Your task to perform on an android device: change the clock style Image 0: 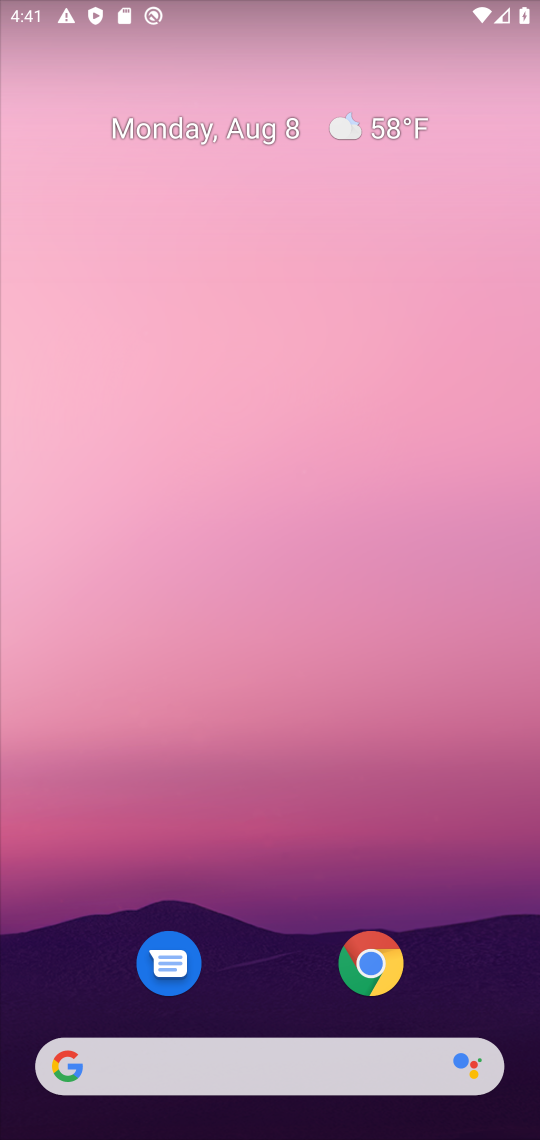
Step 0: drag from (250, 936) to (355, 3)
Your task to perform on an android device: change the clock style Image 1: 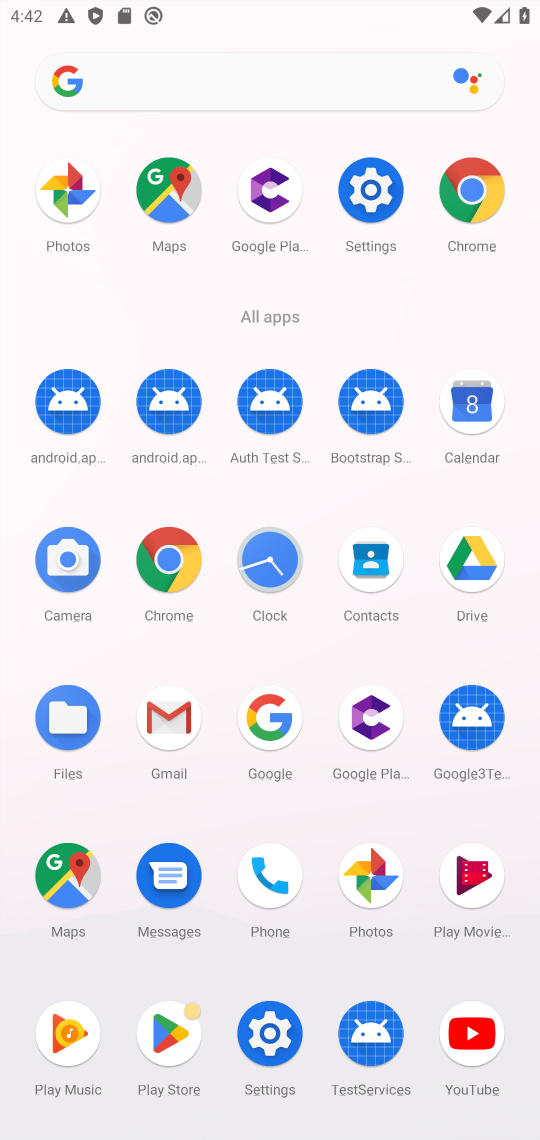
Step 1: click (258, 576)
Your task to perform on an android device: change the clock style Image 2: 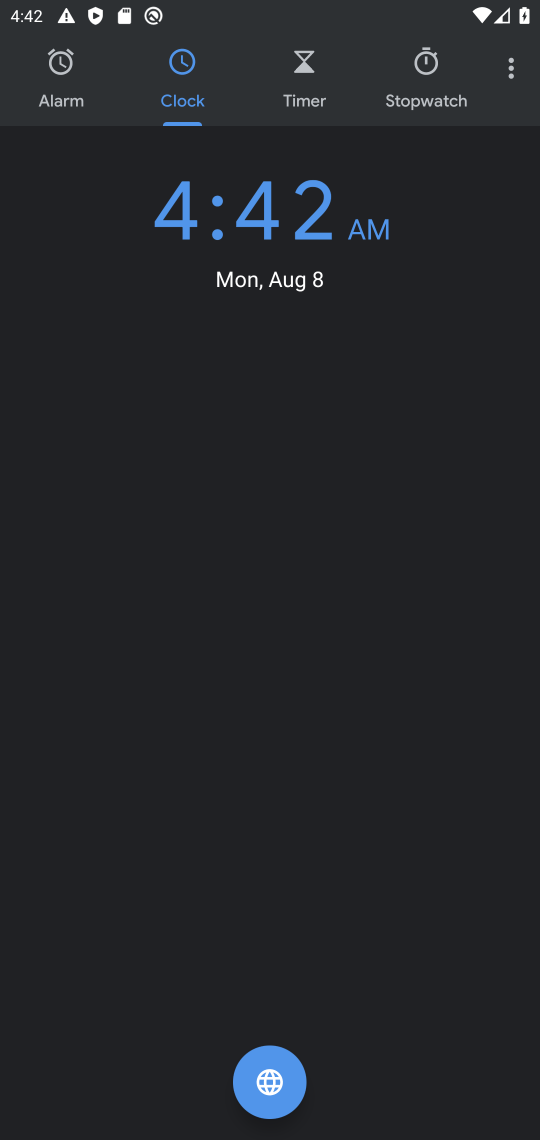
Step 2: click (510, 61)
Your task to perform on an android device: change the clock style Image 3: 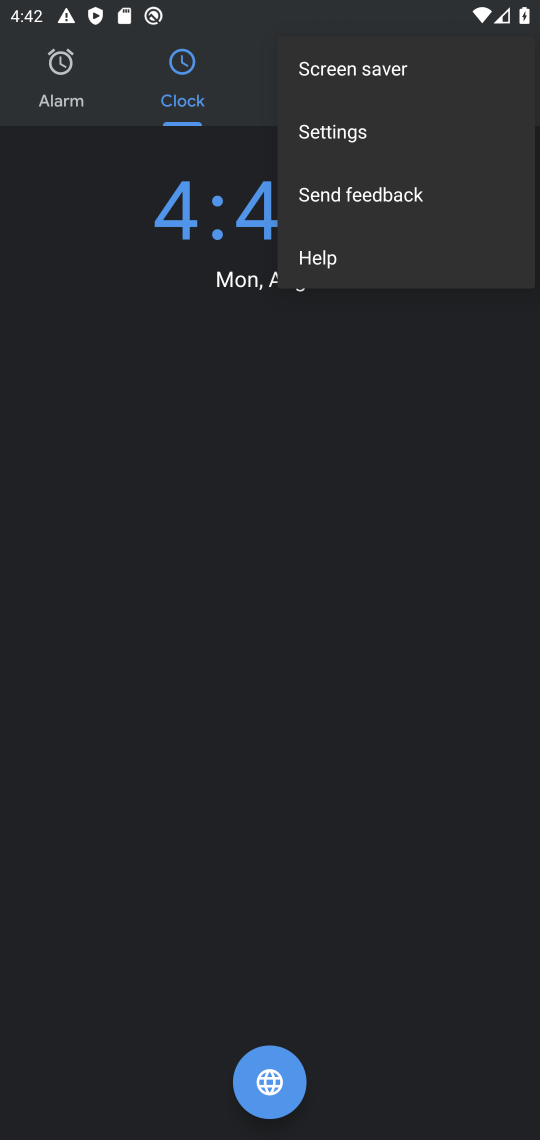
Step 3: click (350, 140)
Your task to perform on an android device: change the clock style Image 4: 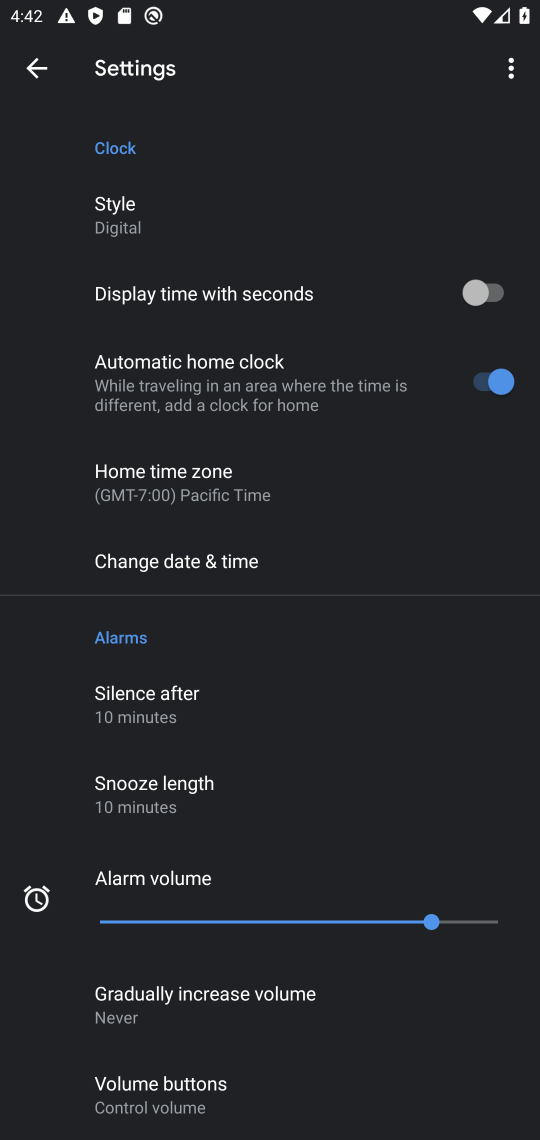
Step 4: click (139, 239)
Your task to perform on an android device: change the clock style Image 5: 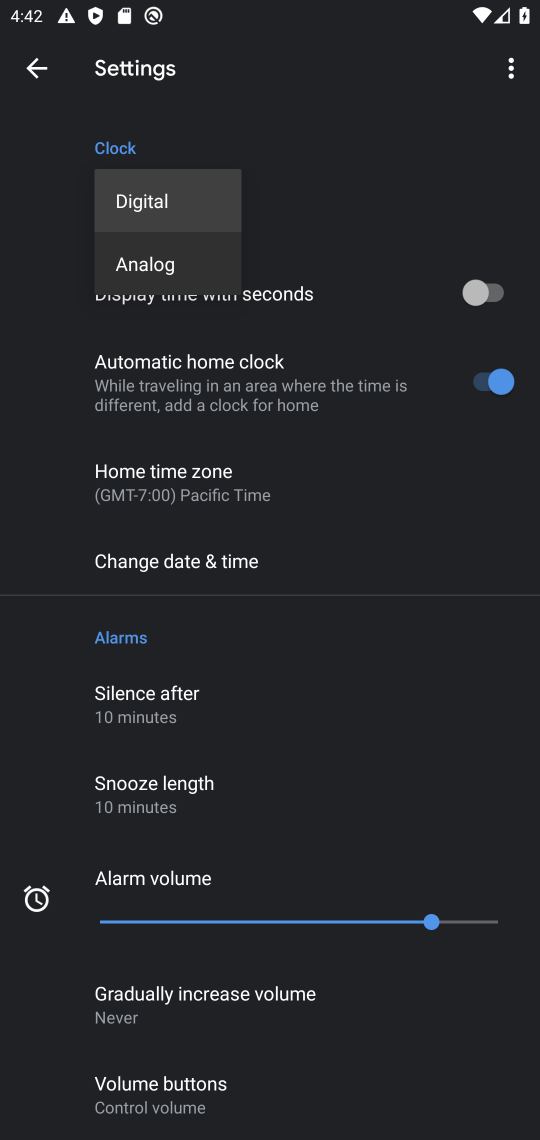
Step 5: click (172, 279)
Your task to perform on an android device: change the clock style Image 6: 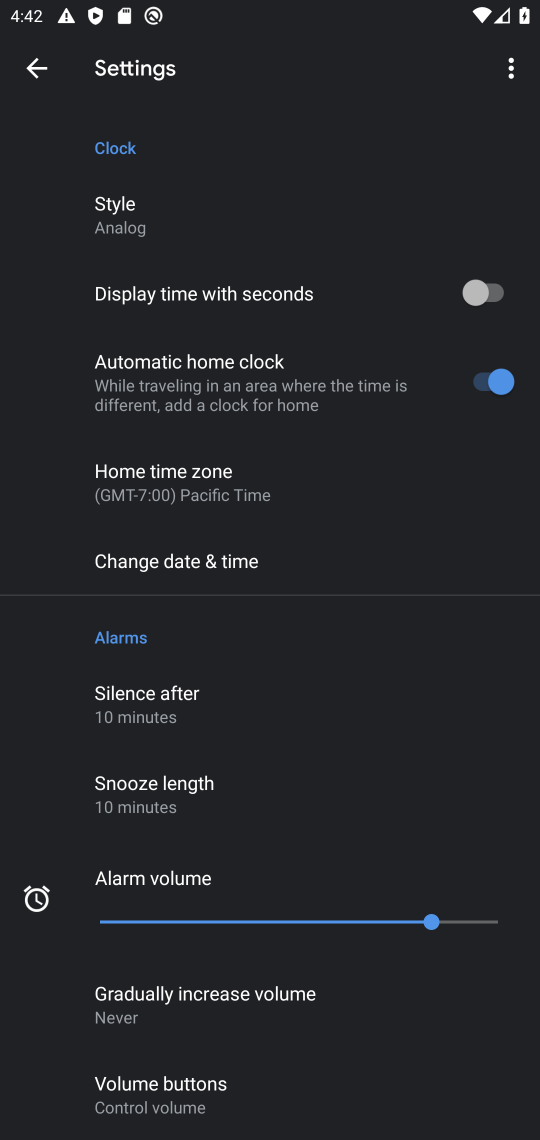
Step 6: task complete